Your task to perform on an android device: Open calendar and show me the second week of next month Image 0: 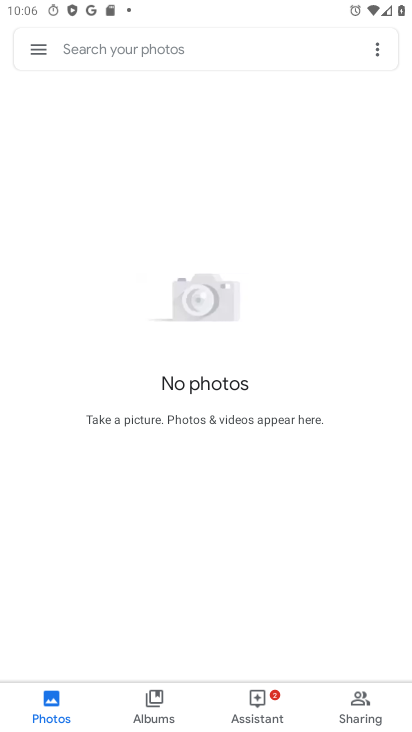
Step 0: press home button
Your task to perform on an android device: Open calendar and show me the second week of next month Image 1: 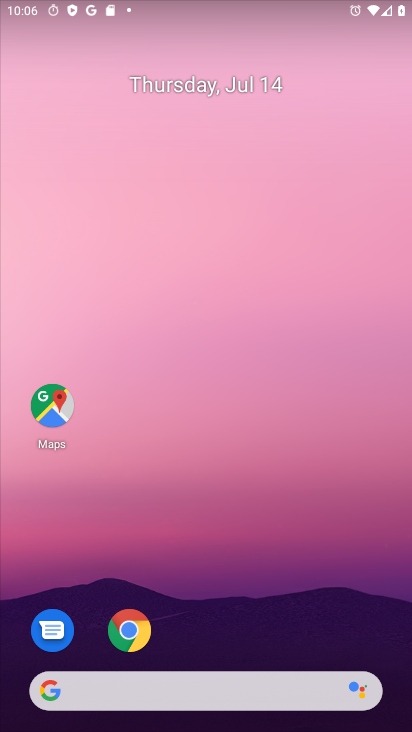
Step 1: drag from (32, 713) to (314, 33)
Your task to perform on an android device: Open calendar and show me the second week of next month Image 2: 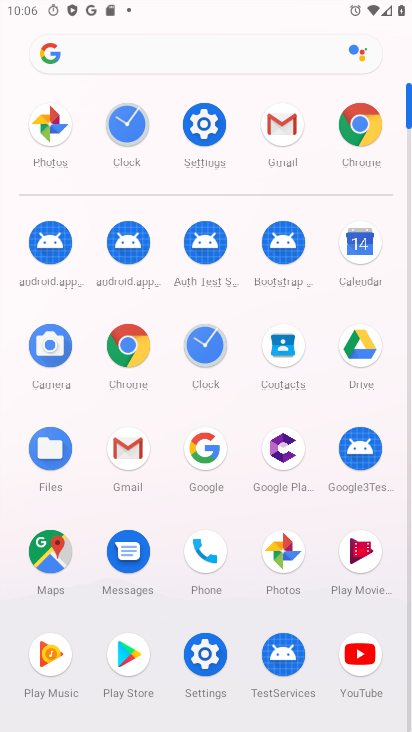
Step 2: click (349, 242)
Your task to perform on an android device: Open calendar and show me the second week of next month Image 3: 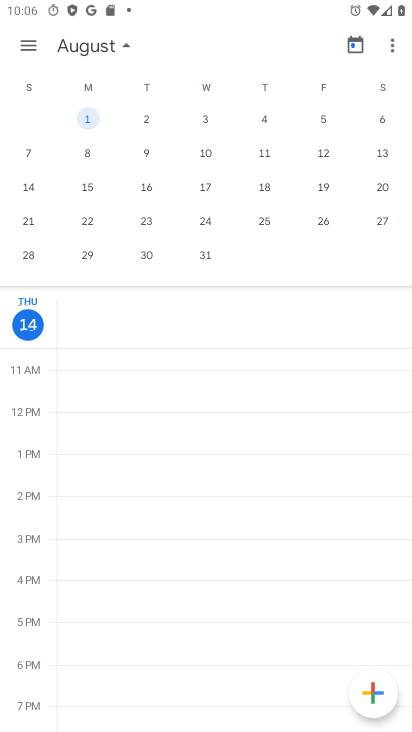
Step 3: click (90, 150)
Your task to perform on an android device: Open calendar and show me the second week of next month Image 4: 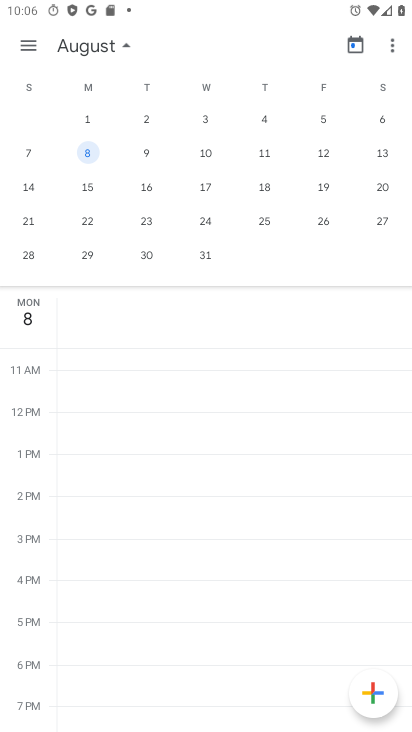
Step 4: task complete